Your task to perform on an android device: move a message to another label in the gmail app Image 0: 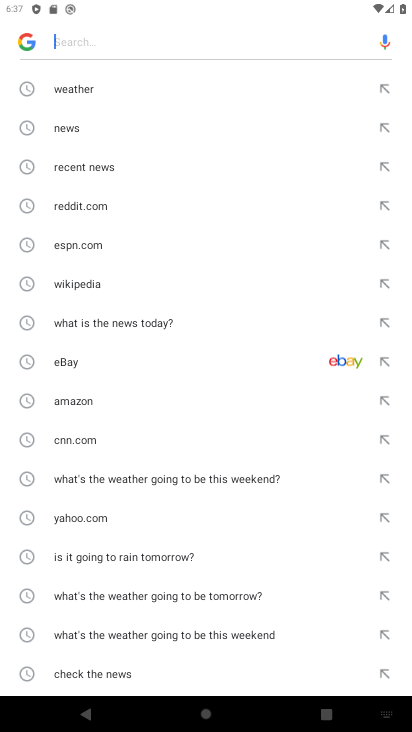
Step 0: press back button
Your task to perform on an android device: move a message to another label in the gmail app Image 1: 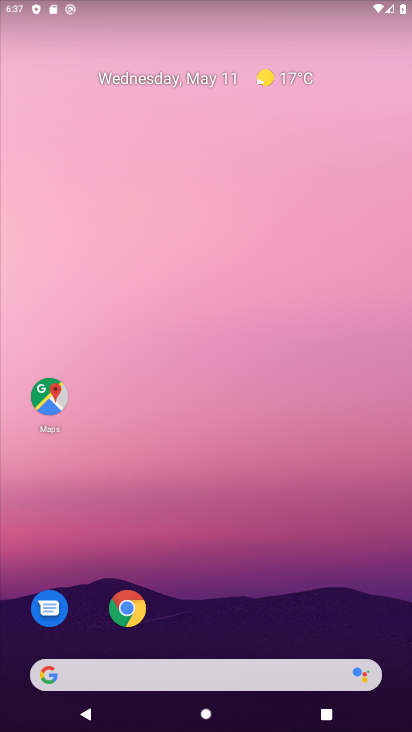
Step 1: drag from (303, 578) to (282, 6)
Your task to perform on an android device: move a message to another label in the gmail app Image 2: 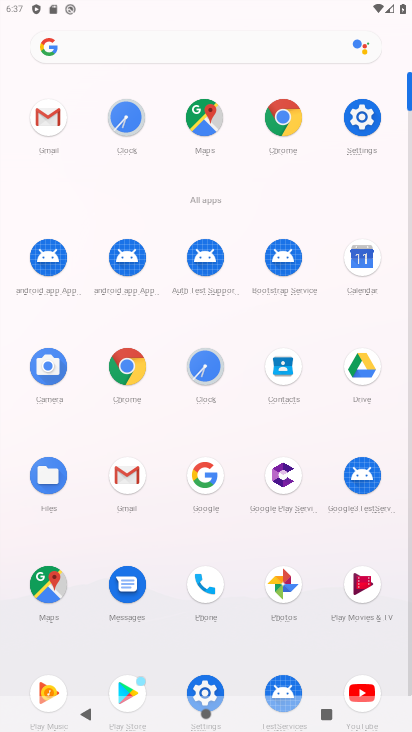
Step 2: click (126, 496)
Your task to perform on an android device: move a message to another label in the gmail app Image 3: 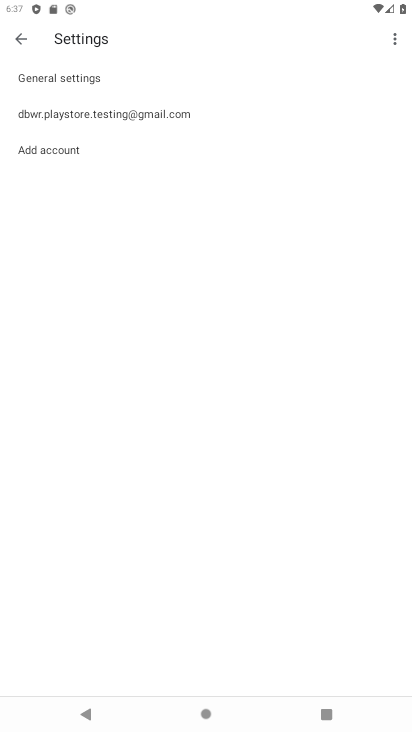
Step 3: click (22, 43)
Your task to perform on an android device: move a message to another label in the gmail app Image 4: 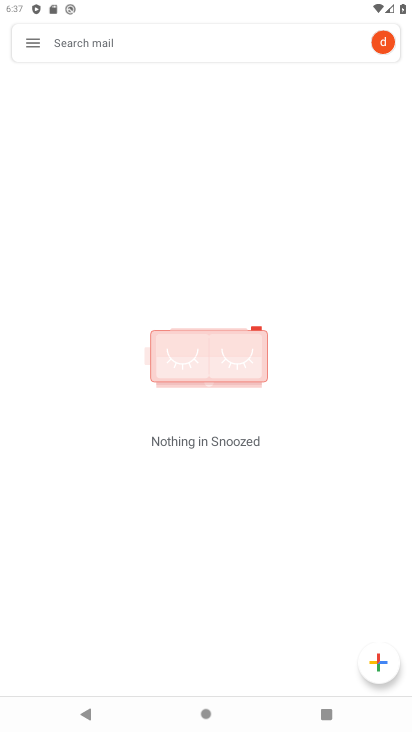
Step 4: click (32, 49)
Your task to perform on an android device: move a message to another label in the gmail app Image 5: 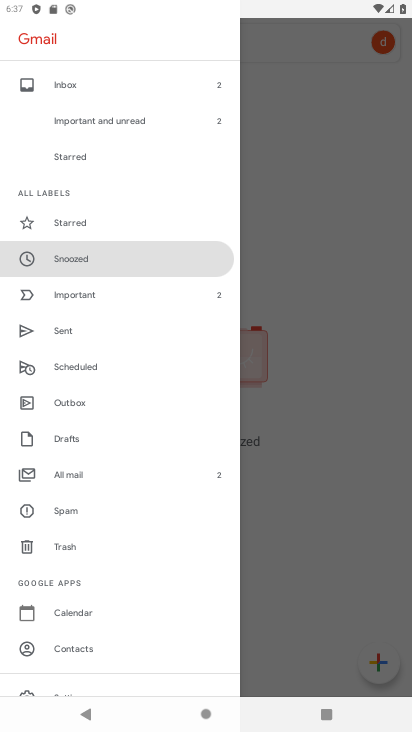
Step 5: click (80, 474)
Your task to perform on an android device: move a message to another label in the gmail app Image 6: 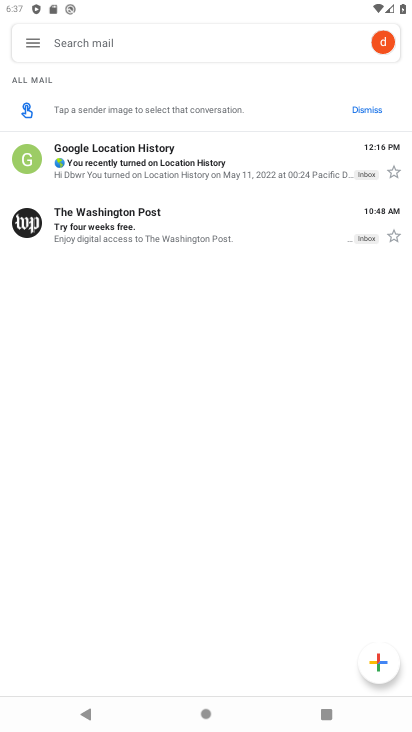
Step 6: click (130, 175)
Your task to perform on an android device: move a message to another label in the gmail app Image 7: 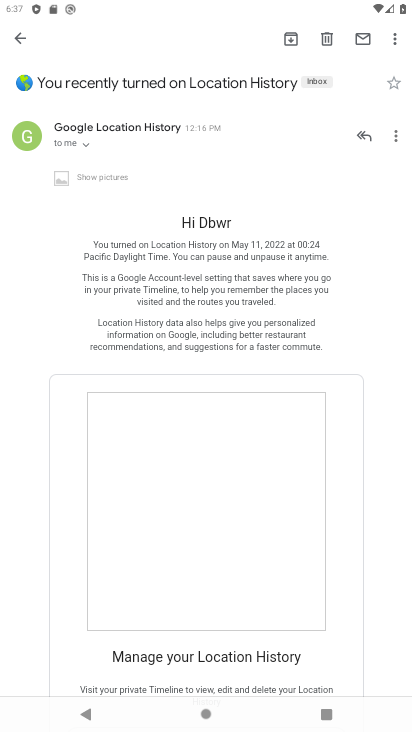
Step 7: click (392, 32)
Your task to perform on an android device: move a message to another label in the gmail app Image 8: 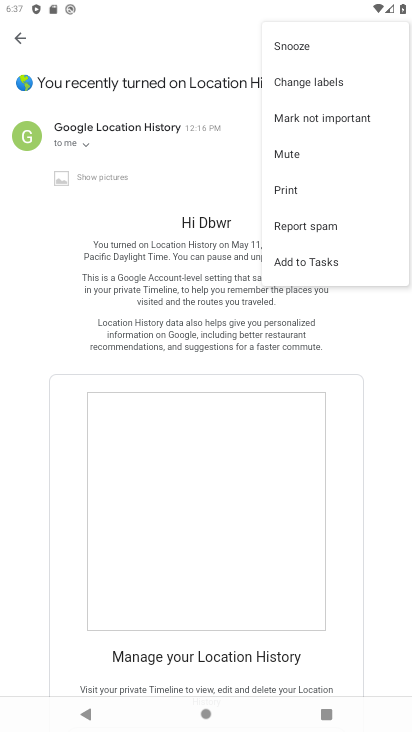
Step 8: click (338, 87)
Your task to perform on an android device: move a message to another label in the gmail app Image 9: 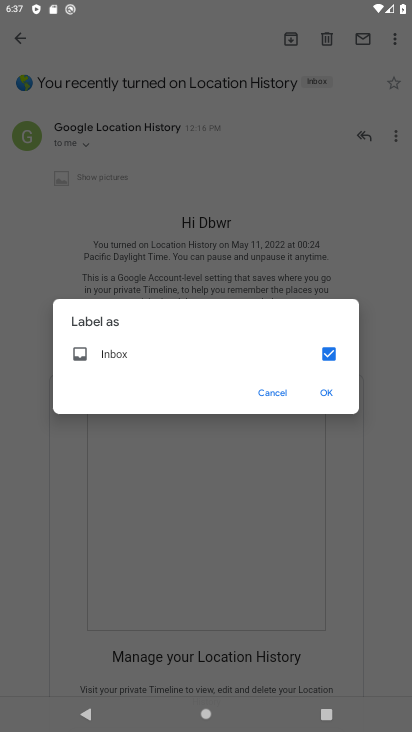
Step 9: click (333, 401)
Your task to perform on an android device: move a message to another label in the gmail app Image 10: 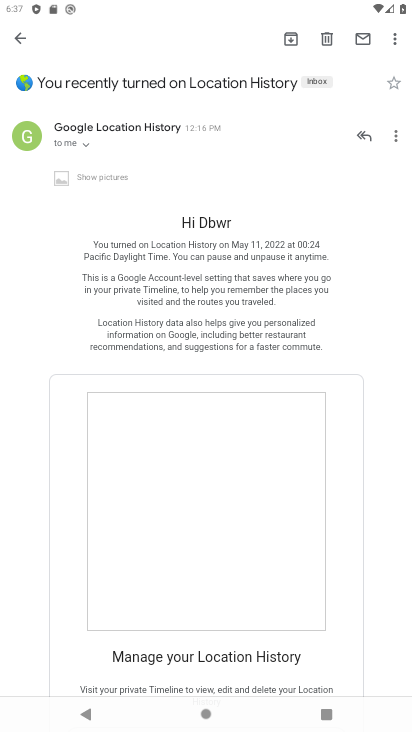
Step 10: task complete